Your task to perform on an android device: delete location history Image 0: 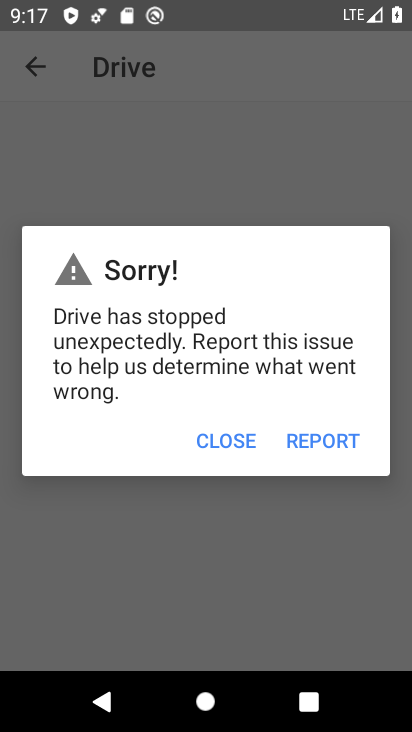
Step 0: press home button
Your task to perform on an android device: delete location history Image 1: 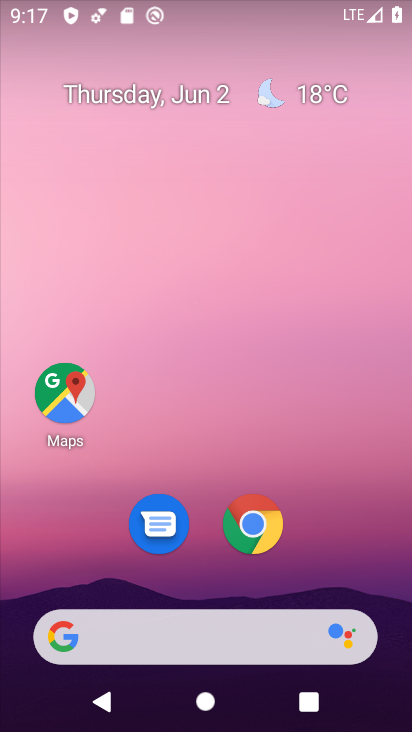
Step 1: click (63, 394)
Your task to perform on an android device: delete location history Image 2: 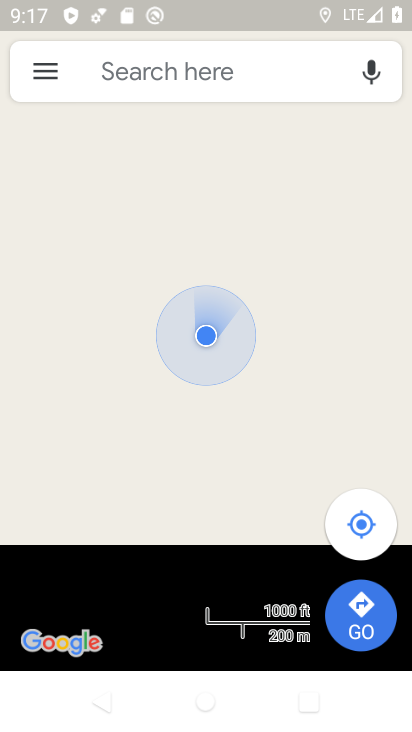
Step 2: click (46, 78)
Your task to perform on an android device: delete location history Image 3: 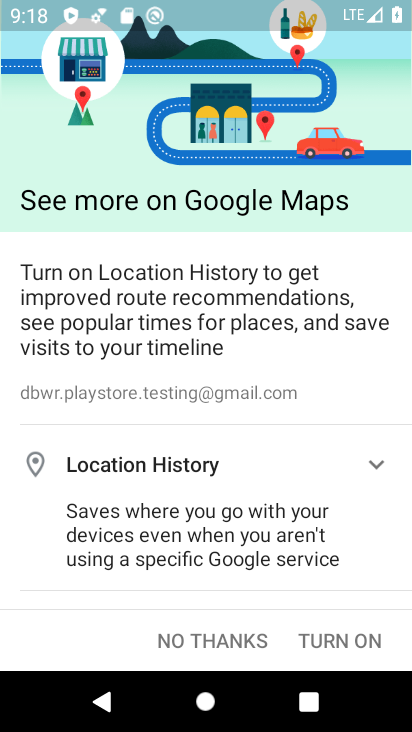
Step 3: click (364, 631)
Your task to perform on an android device: delete location history Image 4: 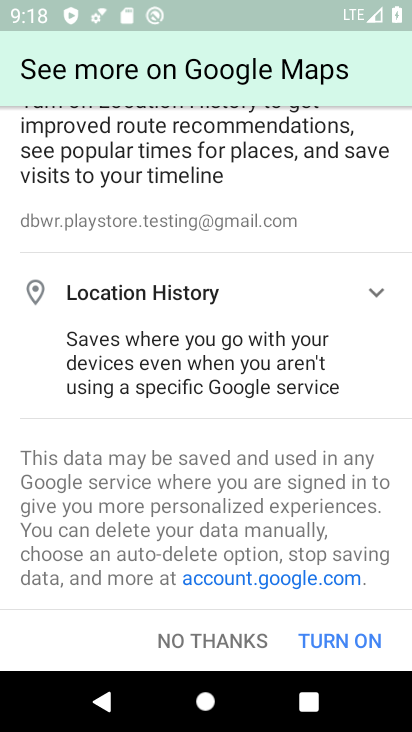
Step 4: click (364, 631)
Your task to perform on an android device: delete location history Image 5: 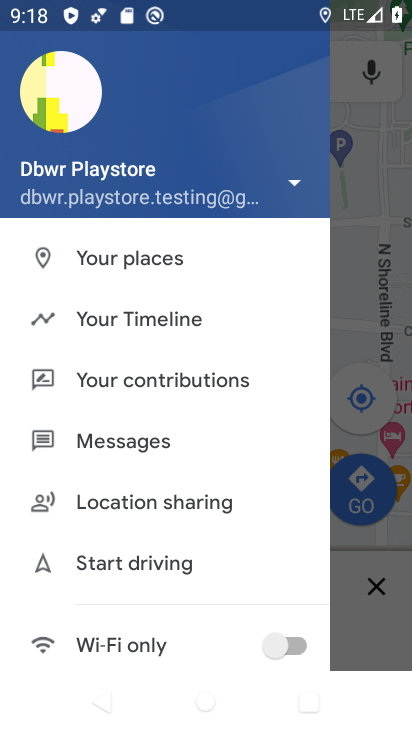
Step 5: click (201, 319)
Your task to perform on an android device: delete location history Image 6: 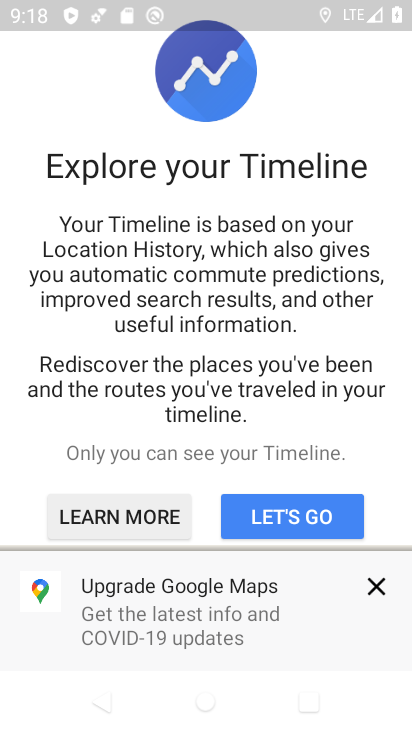
Step 6: click (274, 505)
Your task to perform on an android device: delete location history Image 7: 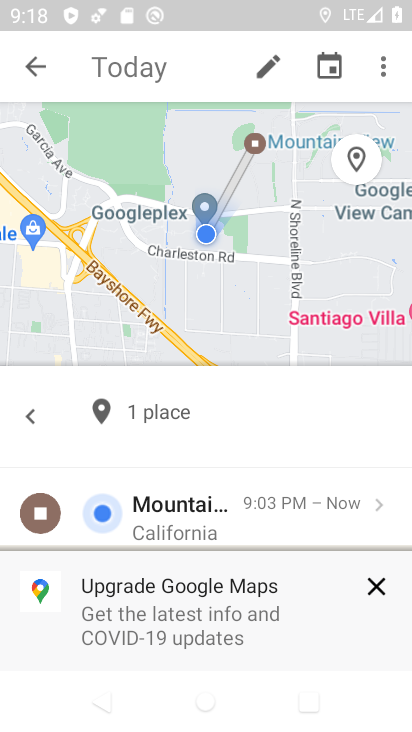
Step 7: click (379, 70)
Your task to perform on an android device: delete location history Image 8: 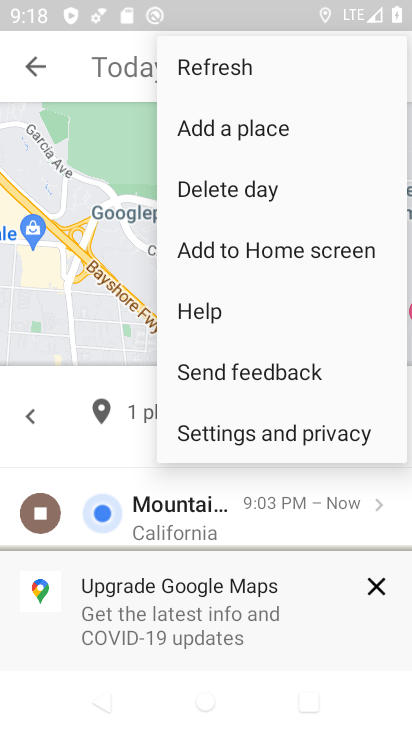
Step 8: click (228, 428)
Your task to perform on an android device: delete location history Image 9: 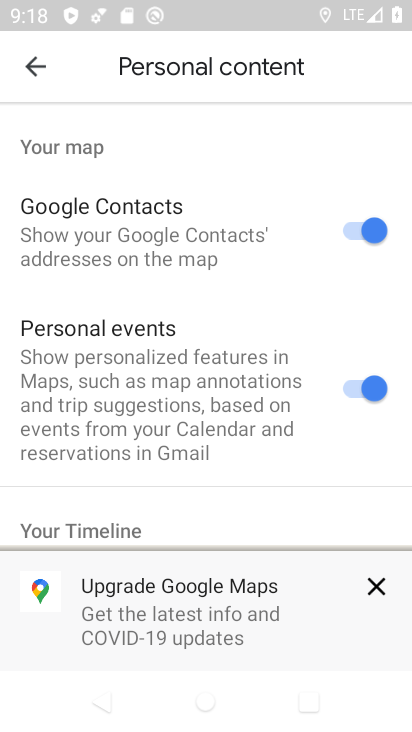
Step 9: drag from (231, 449) to (205, 164)
Your task to perform on an android device: delete location history Image 10: 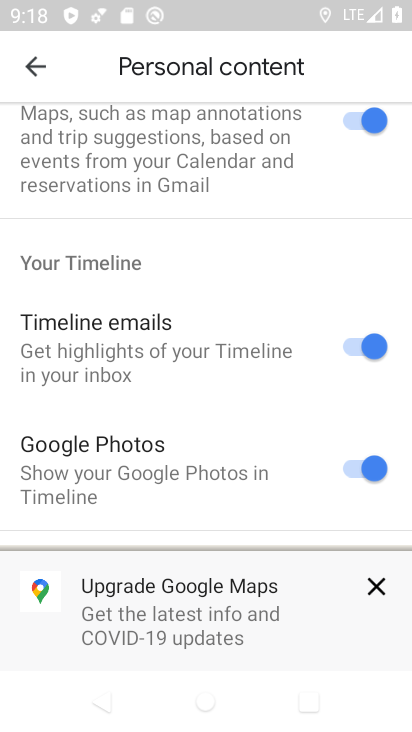
Step 10: drag from (224, 465) to (204, 121)
Your task to perform on an android device: delete location history Image 11: 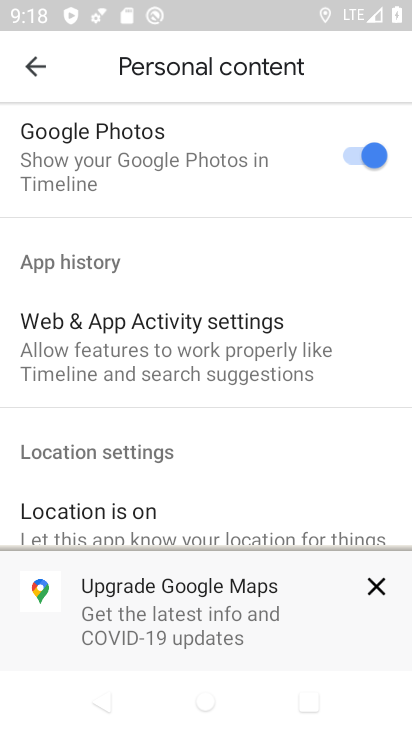
Step 11: drag from (244, 429) to (243, 123)
Your task to perform on an android device: delete location history Image 12: 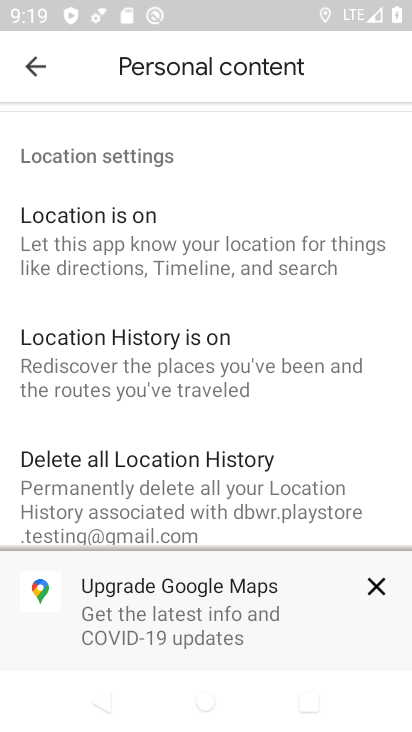
Step 12: click (223, 499)
Your task to perform on an android device: delete location history Image 13: 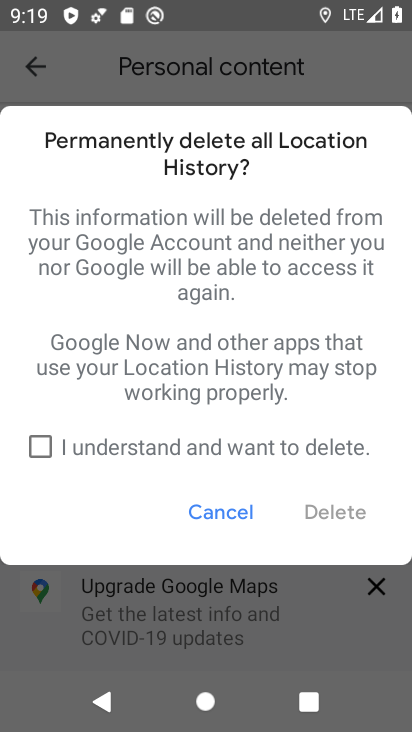
Step 13: click (34, 445)
Your task to perform on an android device: delete location history Image 14: 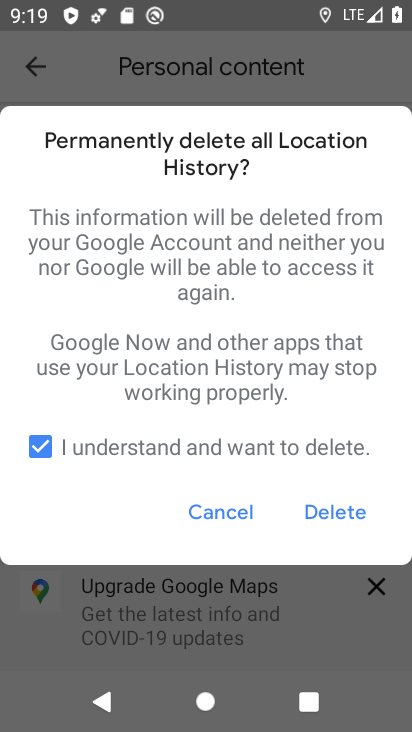
Step 14: click (331, 504)
Your task to perform on an android device: delete location history Image 15: 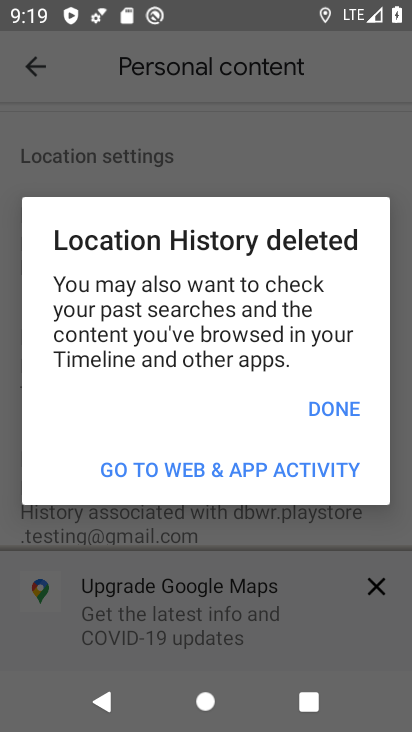
Step 15: click (336, 401)
Your task to perform on an android device: delete location history Image 16: 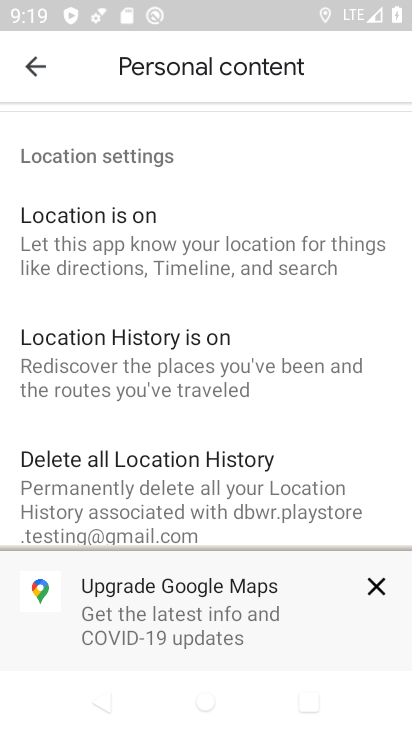
Step 16: drag from (302, 494) to (278, 159)
Your task to perform on an android device: delete location history Image 17: 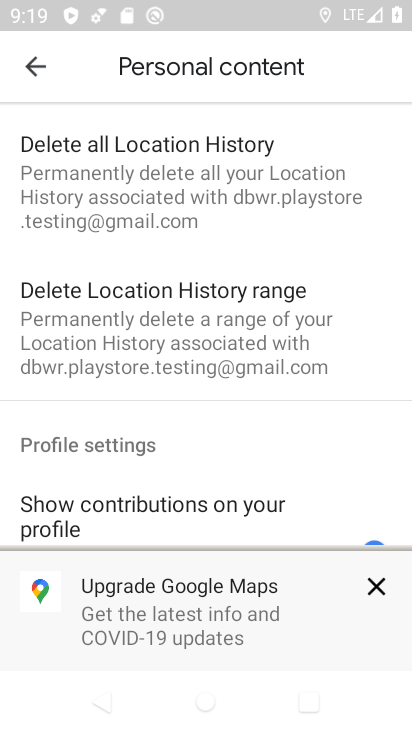
Step 17: click (278, 169)
Your task to perform on an android device: delete location history Image 18: 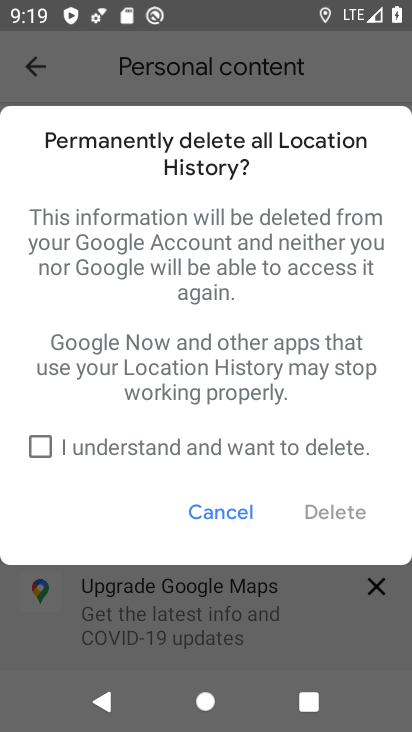
Step 18: click (44, 448)
Your task to perform on an android device: delete location history Image 19: 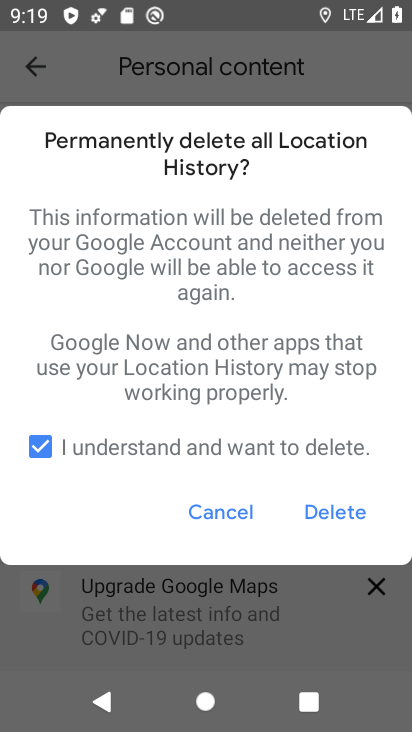
Step 19: click (330, 504)
Your task to perform on an android device: delete location history Image 20: 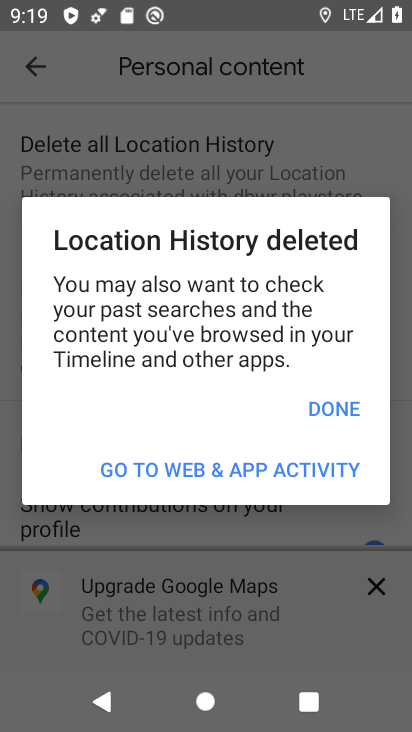
Step 20: click (331, 394)
Your task to perform on an android device: delete location history Image 21: 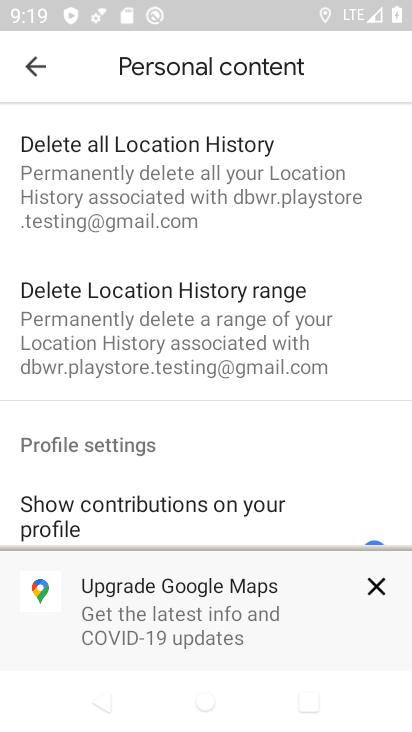
Step 21: task complete